Your task to perform on an android device: change keyboard looks Image 0: 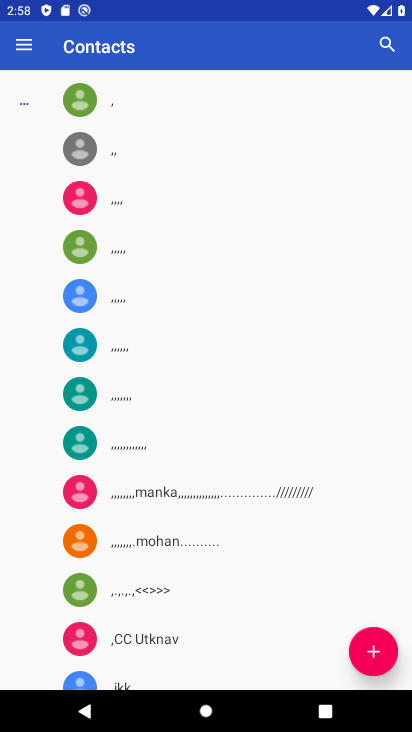
Step 0: press home button
Your task to perform on an android device: change keyboard looks Image 1: 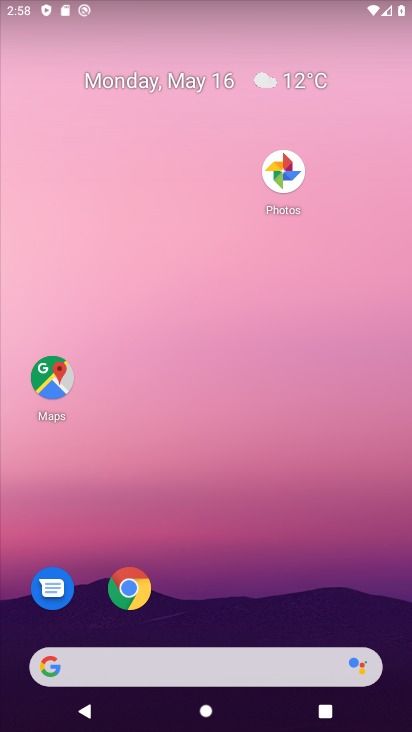
Step 1: drag from (181, 617) to (237, 126)
Your task to perform on an android device: change keyboard looks Image 2: 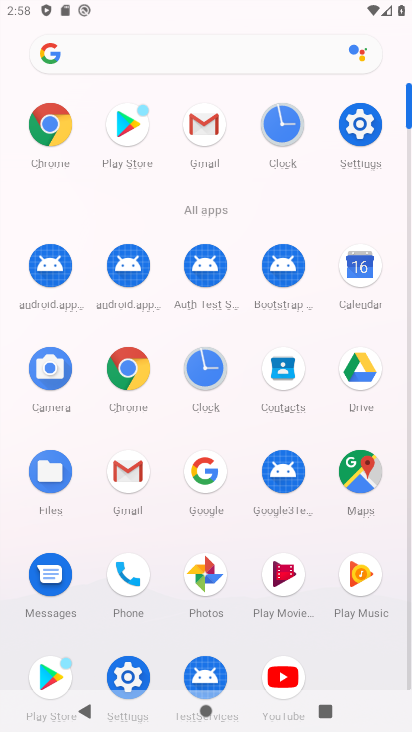
Step 2: click (364, 116)
Your task to perform on an android device: change keyboard looks Image 3: 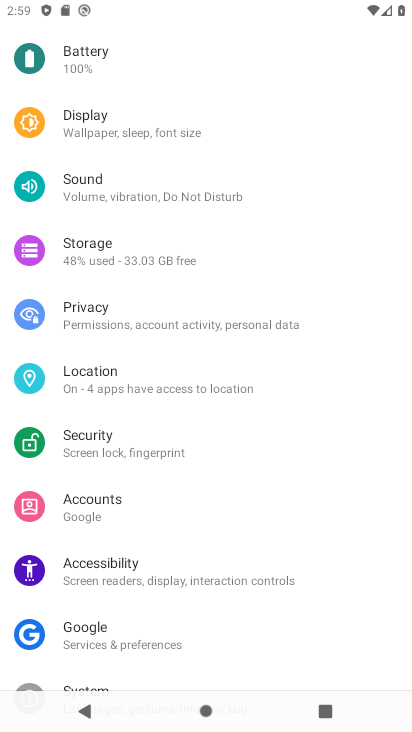
Step 3: drag from (38, 645) to (151, 133)
Your task to perform on an android device: change keyboard looks Image 4: 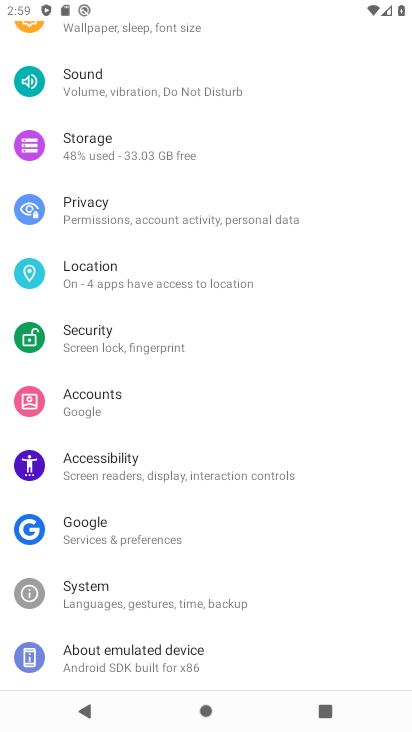
Step 4: click (142, 613)
Your task to perform on an android device: change keyboard looks Image 5: 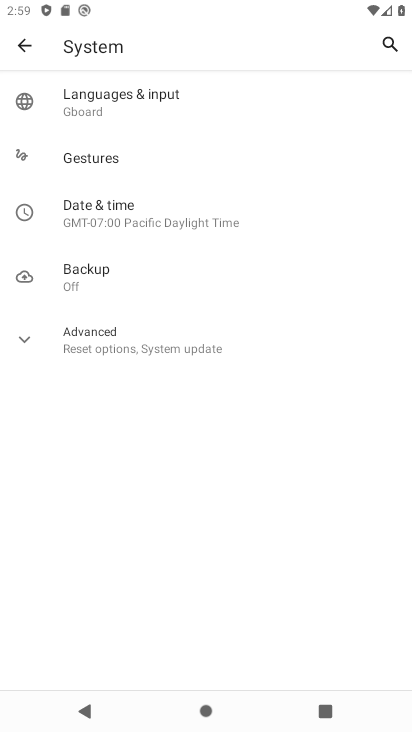
Step 5: click (136, 120)
Your task to perform on an android device: change keyboard looks Image 6: 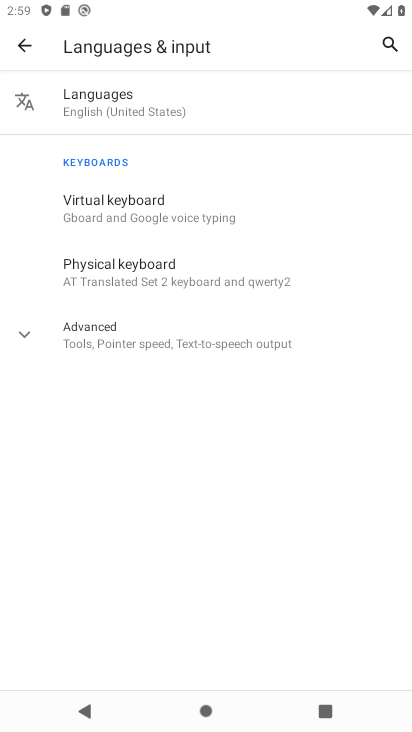
Step 6: click (156, 200)
Your task to perform on an android device: change keyboard looks Image 7: 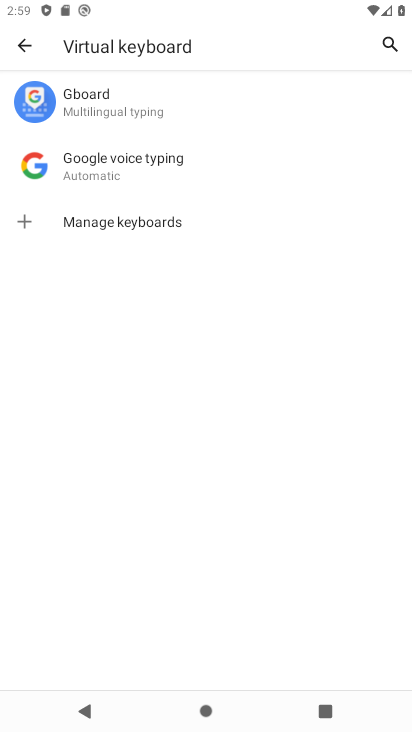
Step 7: click (120, 96)
Your task to perform on an android device: change keyboard looks Image 8: 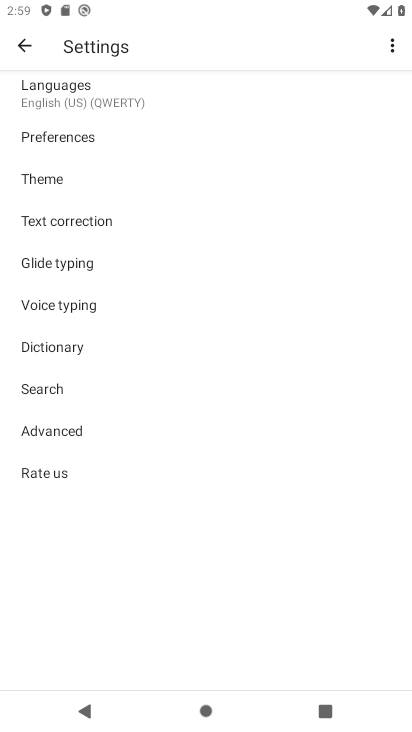
Step 8: click (76, 187)
Your task to perform on an android device: change keyboard looks Image 9: 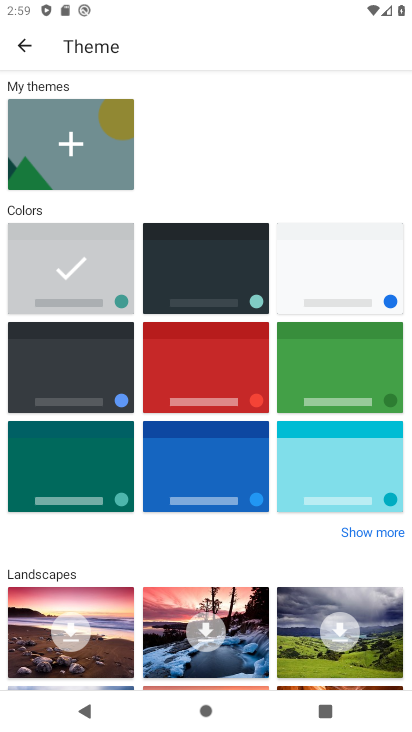
Step 9: click (334, 487)
Your task to perform on an android device: change keyboard looks Image 10: 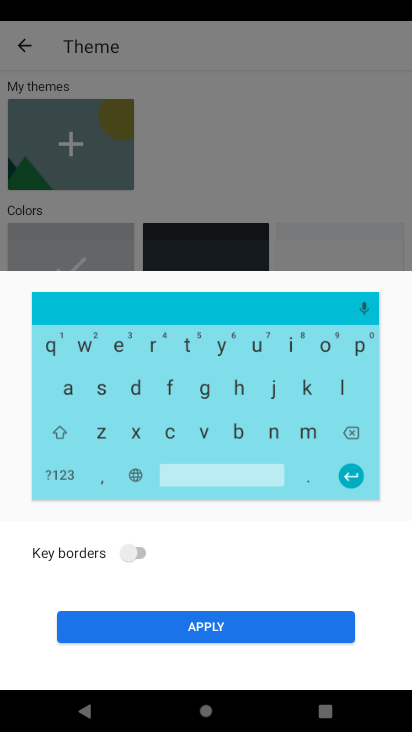
Step 10: click (147, 637)
Your task to perform on an android device: change keyboard looks Image 11: 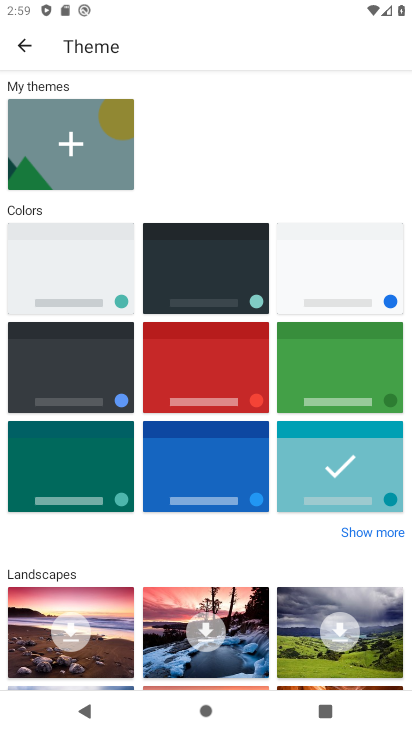
Step 11: task complete